Your task to perform on an android device: Search for "macbook pro 15 inch" on bestbuy, select the first entry, add it to the cart, then select checkout. Image 0: 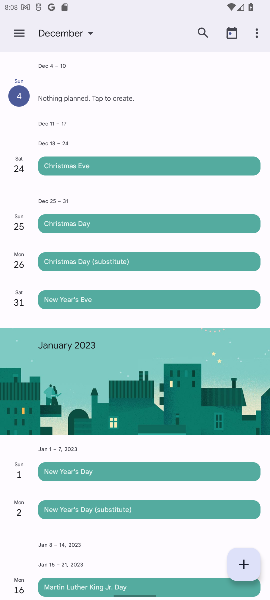
Step 0: press home button
Your task to perform on an android device: Search for "macbook pro 15 inch" on bestbuy, select the first entry, add it to the cart, then select checkout. Image 1: 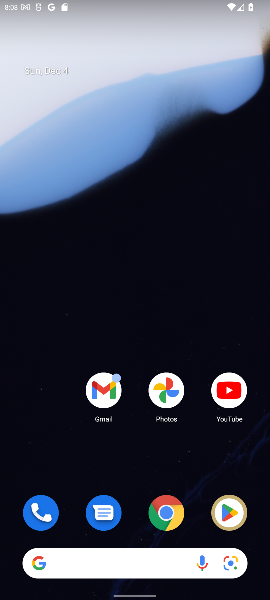
Step 1: click (167, 513)
Your task to perform on an android device: Search for "macbook pro 15 inch" on bestbuy, select the first entry, add it to the cart, then select checkout. Image 2: 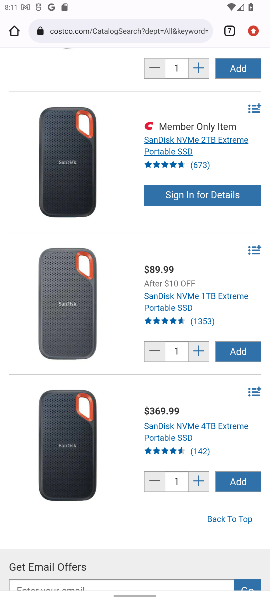
Step 2: click (230, 35)
Your task to perform on an android device: Search for "macbook pro 15 inch" on bestbuy, select the first entry, add it to the cart, then select checkout. Image 3: 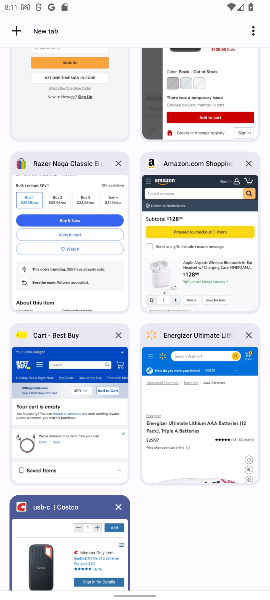
Step 3: click (17, 421)
Your task to perform on an android device: Search for "macbook pro 15 inch" on bestbuy, select the first entry, add it to the cart, then select checkout. Image 4: 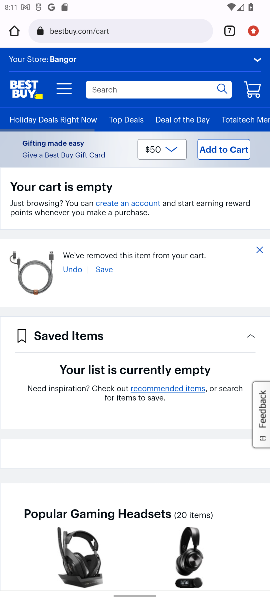
Step 4: click (114, 92)
Your task to perform on an android device: Search for "macbook pro 15 inch" on bestbuy, select the first entry, add it to the cart, then select checkout. Image 5: 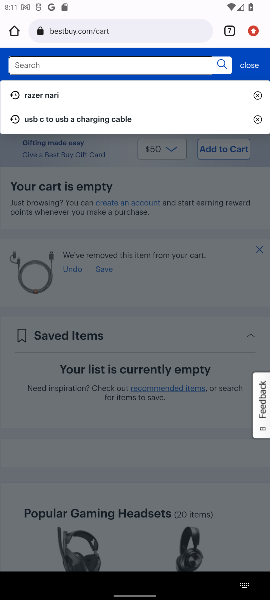
Step 5: type "macbook pro 15 inch"
Your task to perform on an android device: Search for "macbook pro 15 inch" on bestbuy, select the first entry, add it to the cart, then select checkout. Image 6: 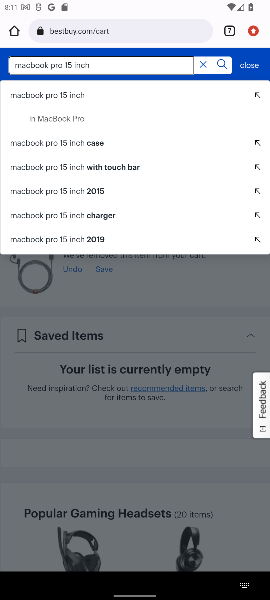
Step 6: click (68, 94)
Your task to perform on an android device: Search for "macbook pro 15 inch" on bestbuy, select the first entry, add it to the cart, then select checkout. Image 7: 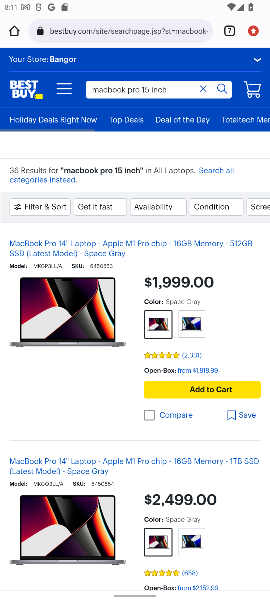
Step 7: click (189, 416)
Your task to perform on an android device: Search for "macbook pro 15 inch" on bestbuy, select the first entry, add it to the cart, then select checkout. Image 8: 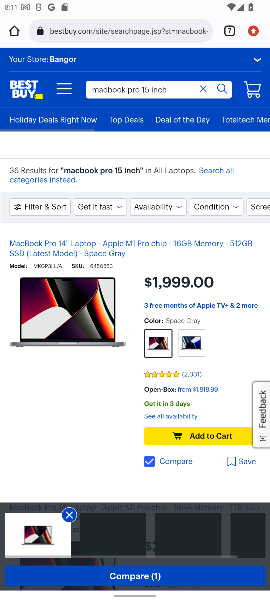
Step 8: click (189, 435)
Your task to perform on an android device: Search for "macbook pro 15 inch" on bestbuy, select the first entry, add it to the cart, then select checkout. Image 9: 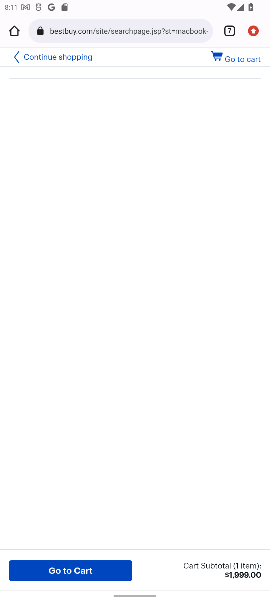
Step 9: task complete